Your task to perform on an android device: Open Chrome and go to the settings page Image 0: 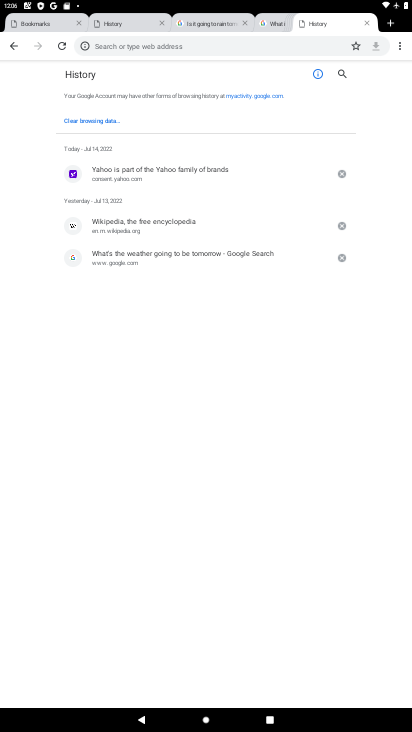
Step 0: click (400, 42)
Your task to perform on an android device: Open Chrome and go to the settings page Image 1: 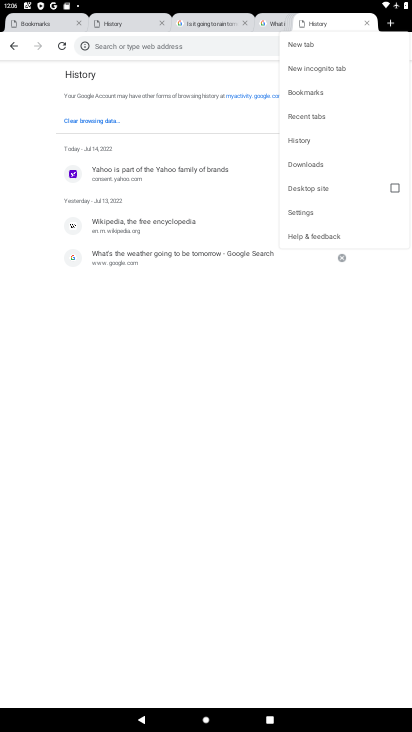
Step 1: click (318, 204)
Your task to perform on an android device: Open Chrome and go to the settings page Image 2: 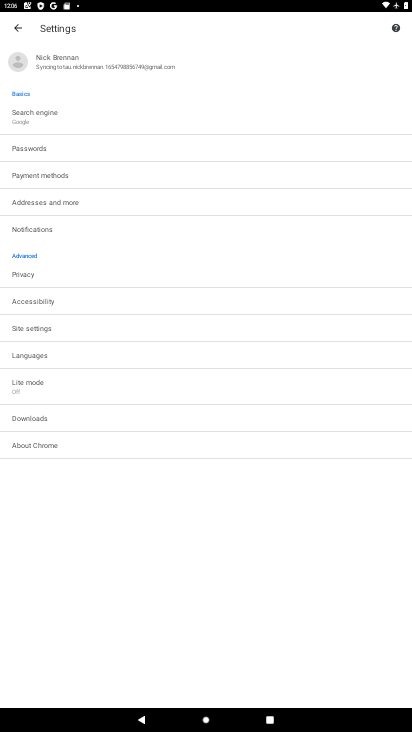
Step 2: task complete